Your task to perform on an android device: Open the Play Movies app and select the watchlist tab. Image 0: 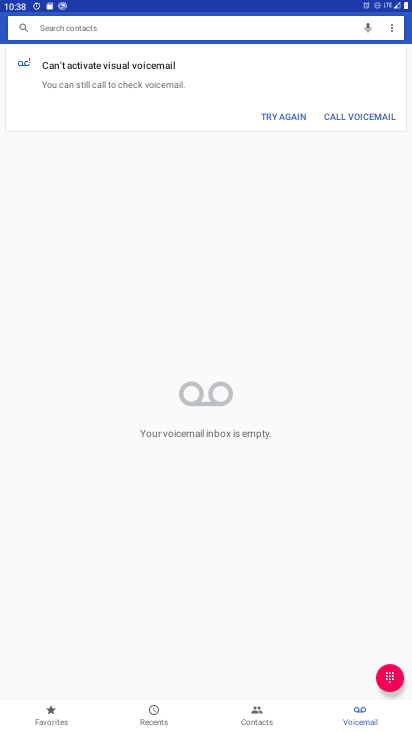
Step 0: press home button
Your task to perform on an android device: Open the Play Movies app and select the watchlist tab. Image 1: 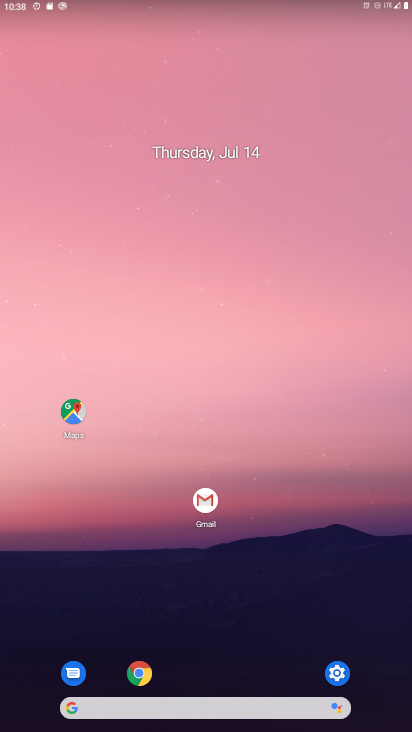
Step 1: drag from (260, 716) to (247, 265)
Your task to perform on an android device: Open the Play Movies app and select the watchlist tab. Image 2: 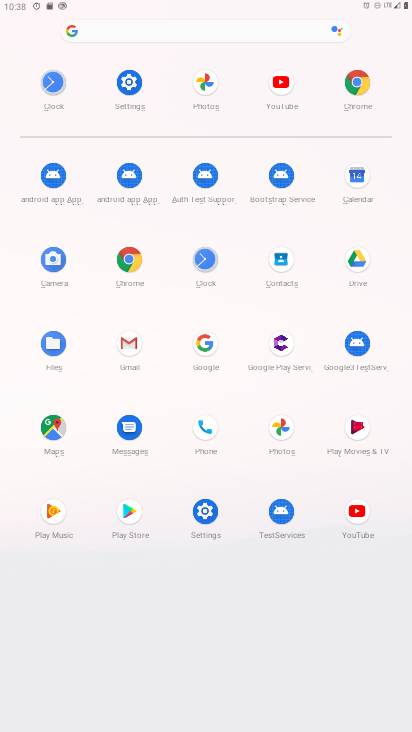
Step 2: click (349, 402)
Your task to perform on an android device: Open the Play Movies app and select the watchlist tab. Image 3: 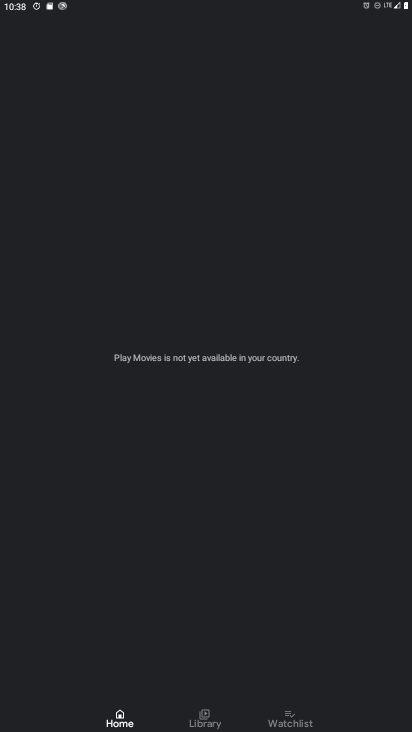
Step 3: click (296, 711)
Your task to perform on an android device: Open the Play Movies app and select the watchlist tab. Image 4: 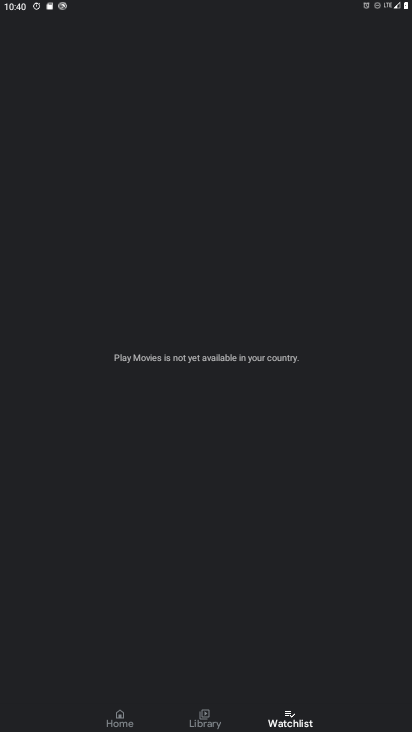
Step 4: task complete